Your task to perform on an android device: turn off notifications settings in the gmail app Image 0: 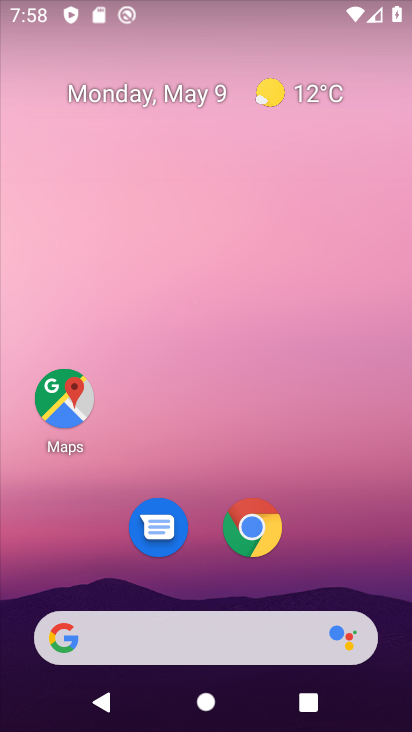
Step 0: drag from (321, 585) to (304, 228)
Your task to perform on an android device: turn off notifications settings in the gmail app Image 1: 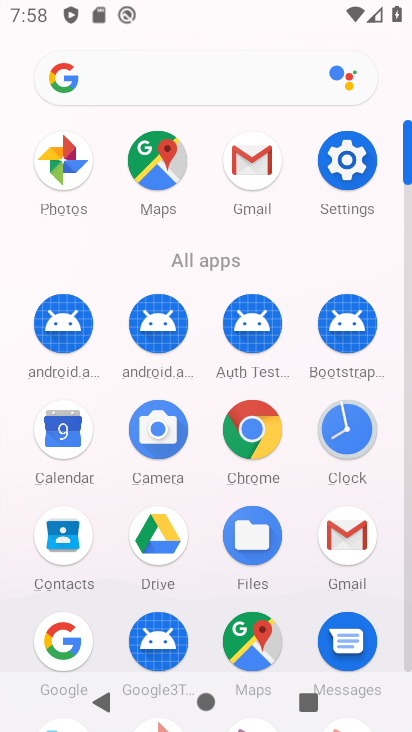
Step 1: click (341, 549)
Your task to perform on an android device: turn off notifications settings in the gmail app Image 2: 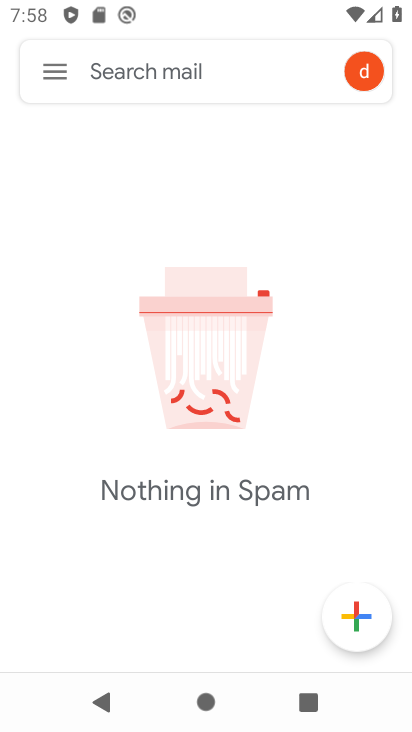
Step 2: click (39, 81)
Your task to perform on an android device: turn off notifications settings in the gmail app Image 3: 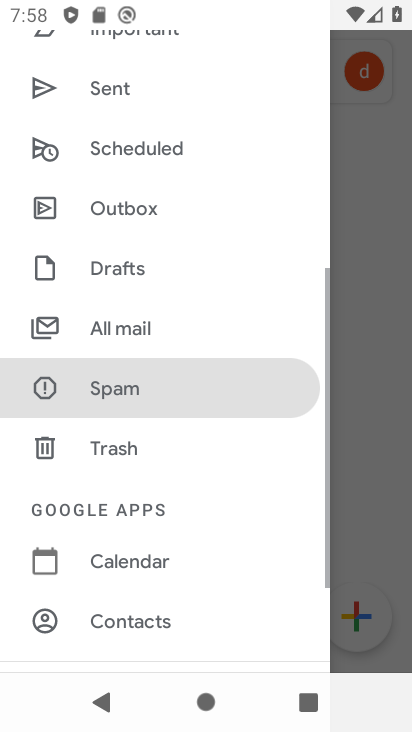
Step 3: drag from (248, 544) to (266, 234)
Your task to perform on an android device: turn off notifications settings in the gmail app Image 4: 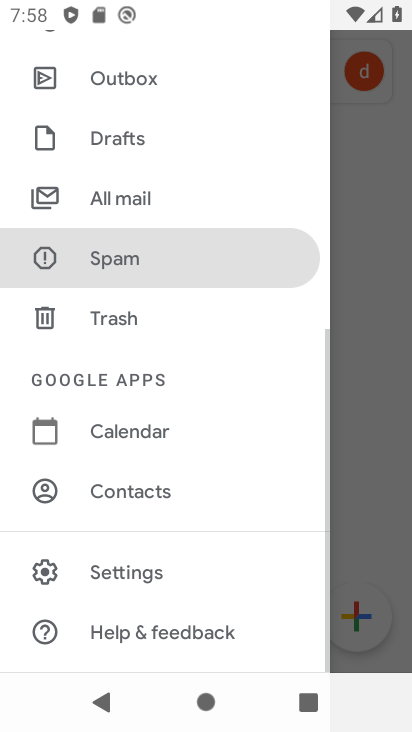
Step 4: click (247, 556)
Your task to perform on an android device: turn off notifications settings in the gmail app Image 5: 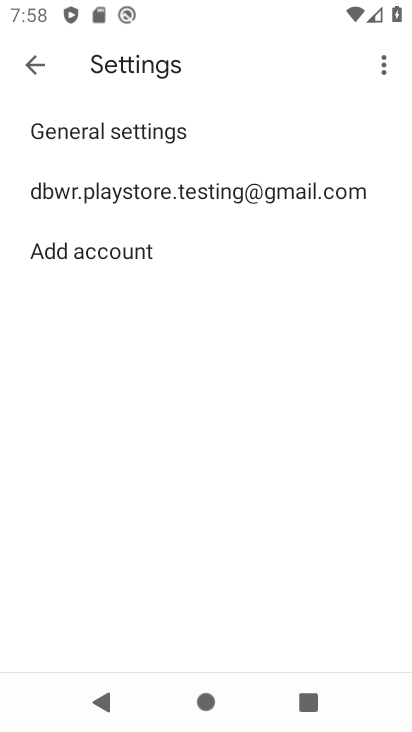
Step 5: click (216, 186)
Your task to perform on an android device: turn off notifications settings in the gmail app Image 6: 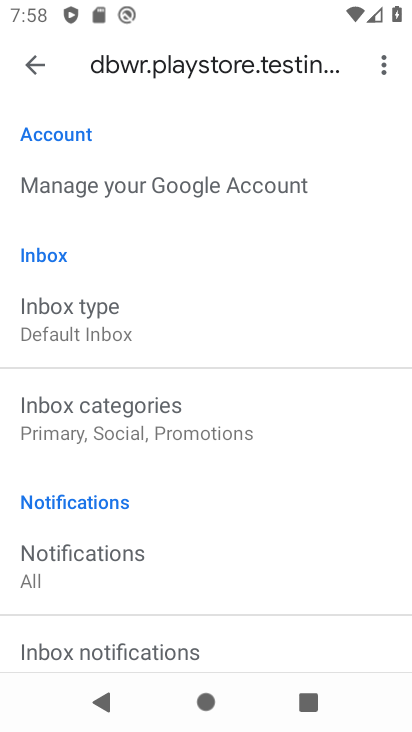
Step 6: drag from (179, 529) to (213, 178)
Your task to perform on an android device: turn off notifications settings in the gmail app Image 7: 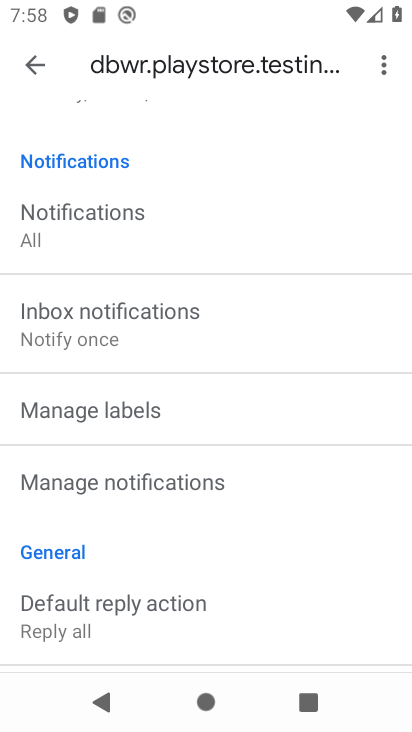
Step 7: click (197, 190)
Your task to perform on an android device: turn off notifications settings in the gmail app Image 8: 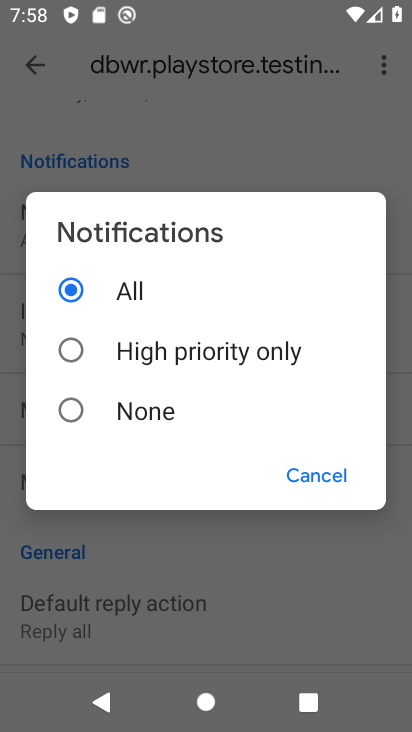
Step 8: click (86, 418)
Your task to perform on an android device: turn off notifications settings in the gmail app Image 9: 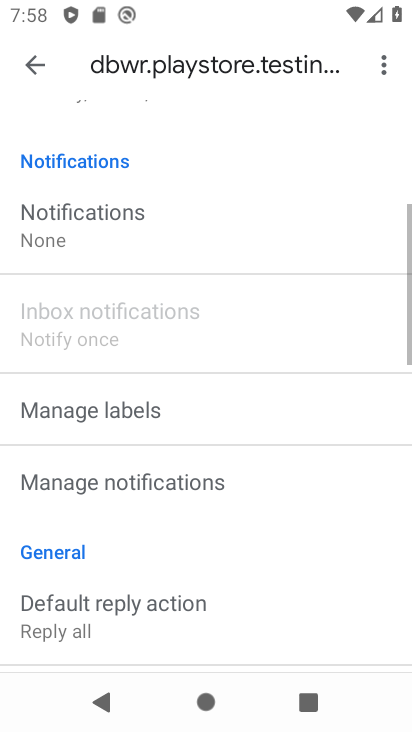
Step 9: task complete